Your task to perform on an android device: turn off location Image 0: 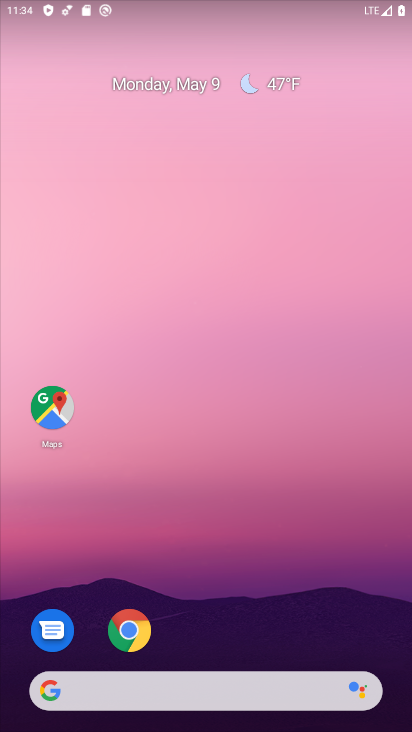
Step 0: press home button
Your task to perform on an android device: turn off location Image 1: 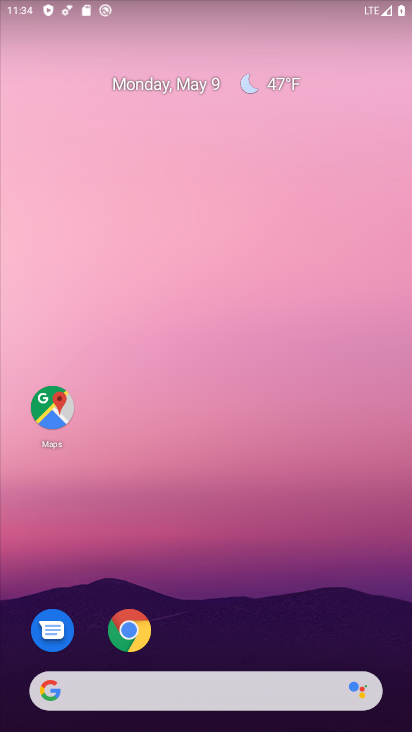
Step 1: drag from (170, 695) to (308, 183)
Your task to perform on an android device: turn off location Image 2: 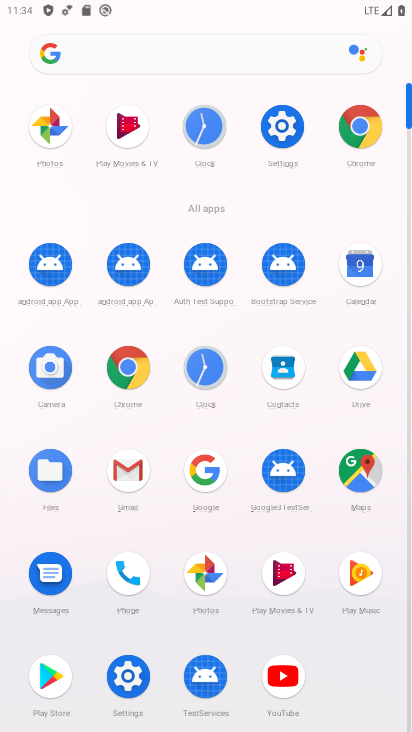
Step 2: click (282, 134)
Your task to perform on an android device: turn off location Image 3: 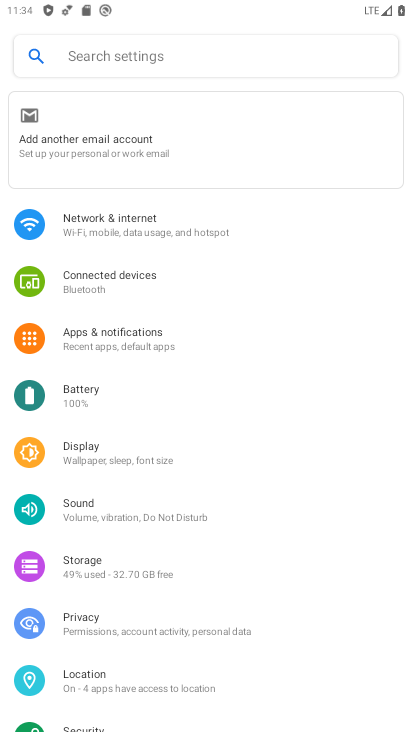
Step 3: click (97, 676)
Your task to perform on an android device: turn off location Image 4: 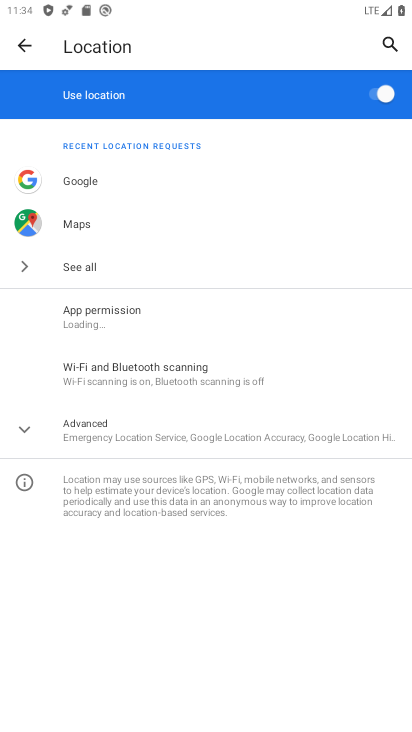
Step 4: click (374, 91)
Your task to perform on an android device: turn off location Image 5: 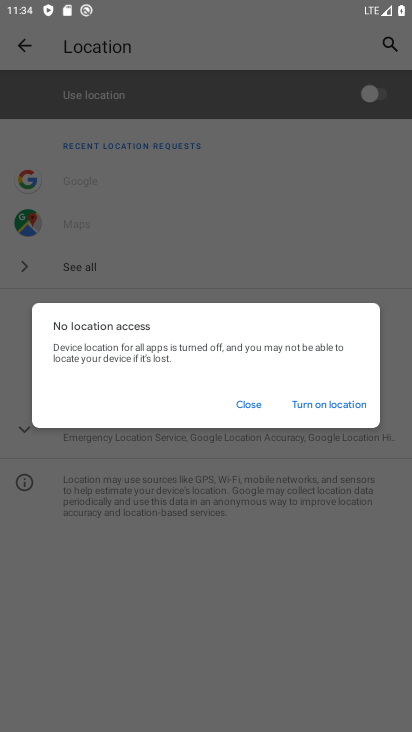
Step 5: task complete